Your task to perform on an android device: Open the calendar and show me this week's events? Image 0: 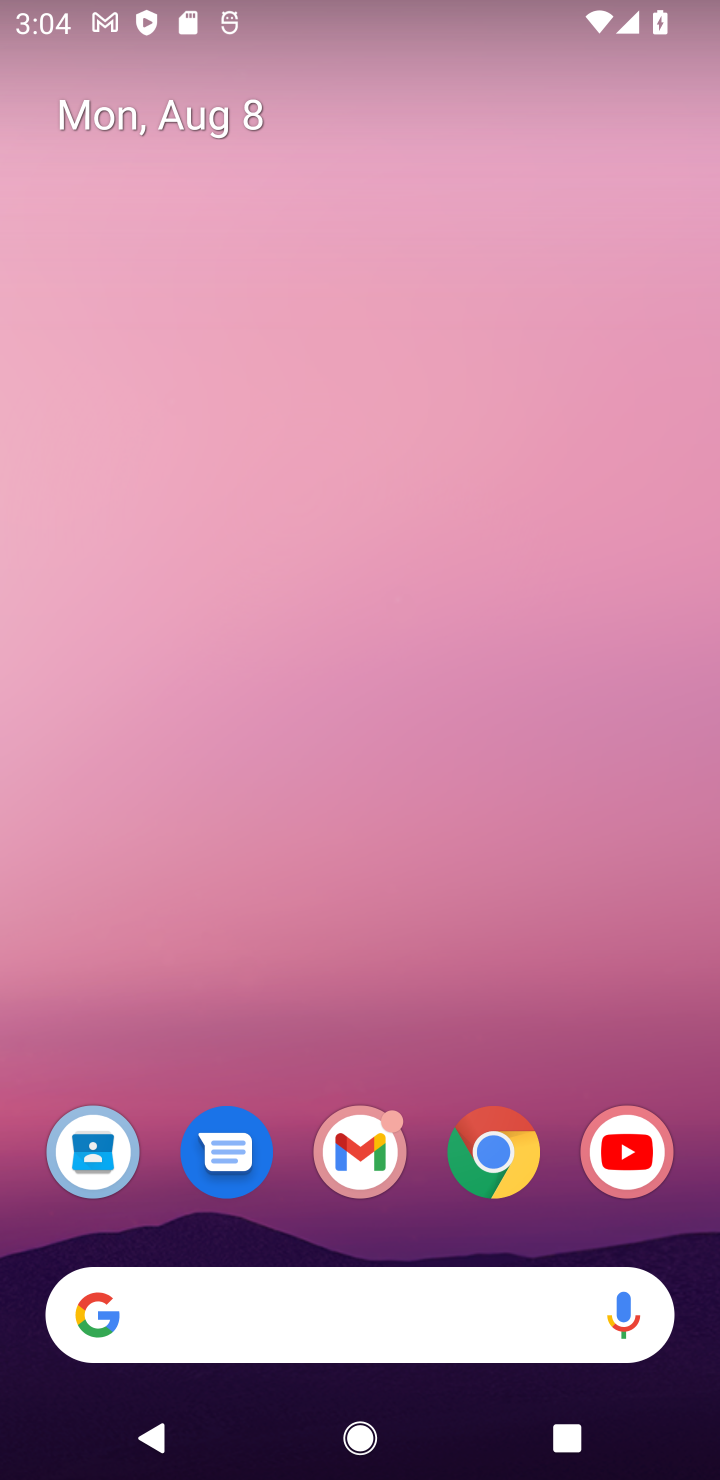
Step 0: drag from (408, 1221) to (638, 119)
Your task to perform on an android device: Open the calendar and show me this week's events? Image 1: 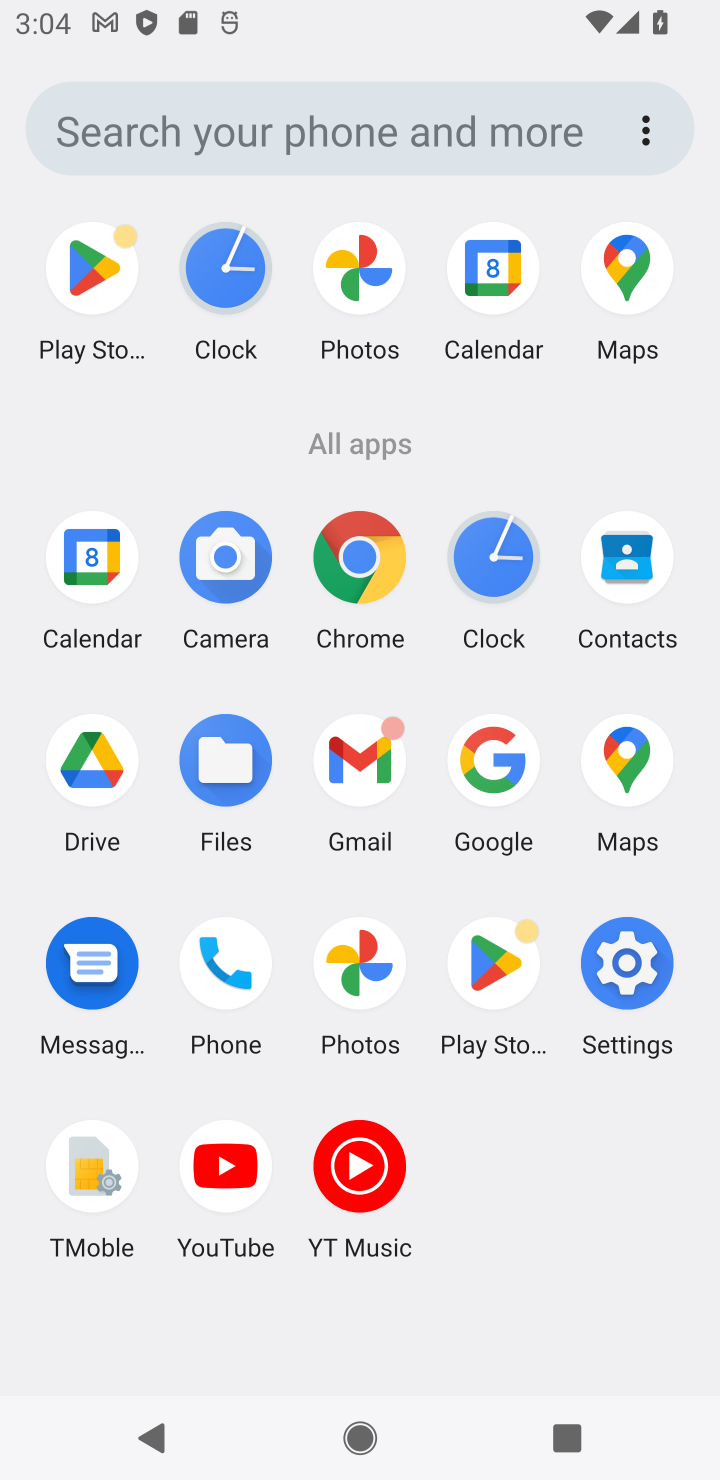
Step 1: click (100, 615)
Your task to perform on an android device: Open the calendar and show me this week's events? Image 2: 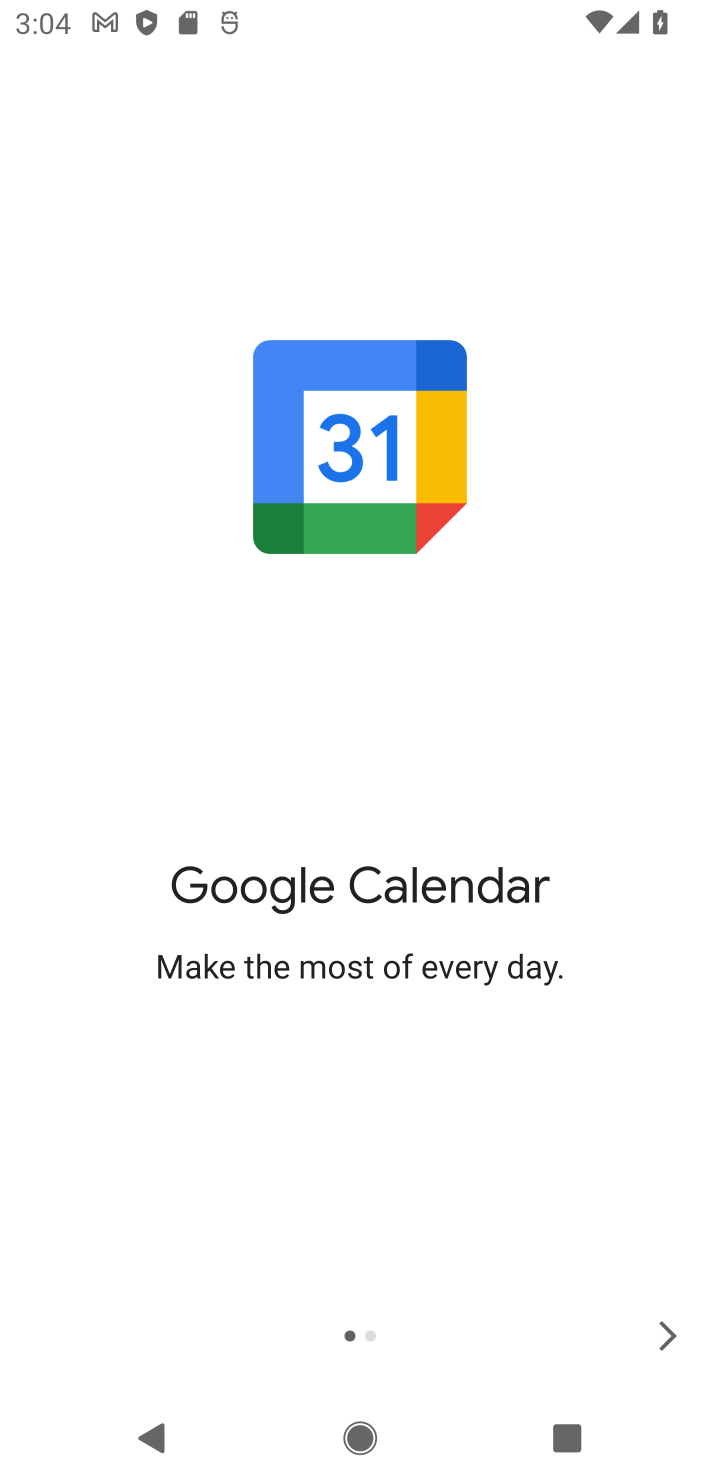
Step 2: click (660, 1340)
Your task to perform on an android device: Open the calendar and show me this week's events? Image 3: 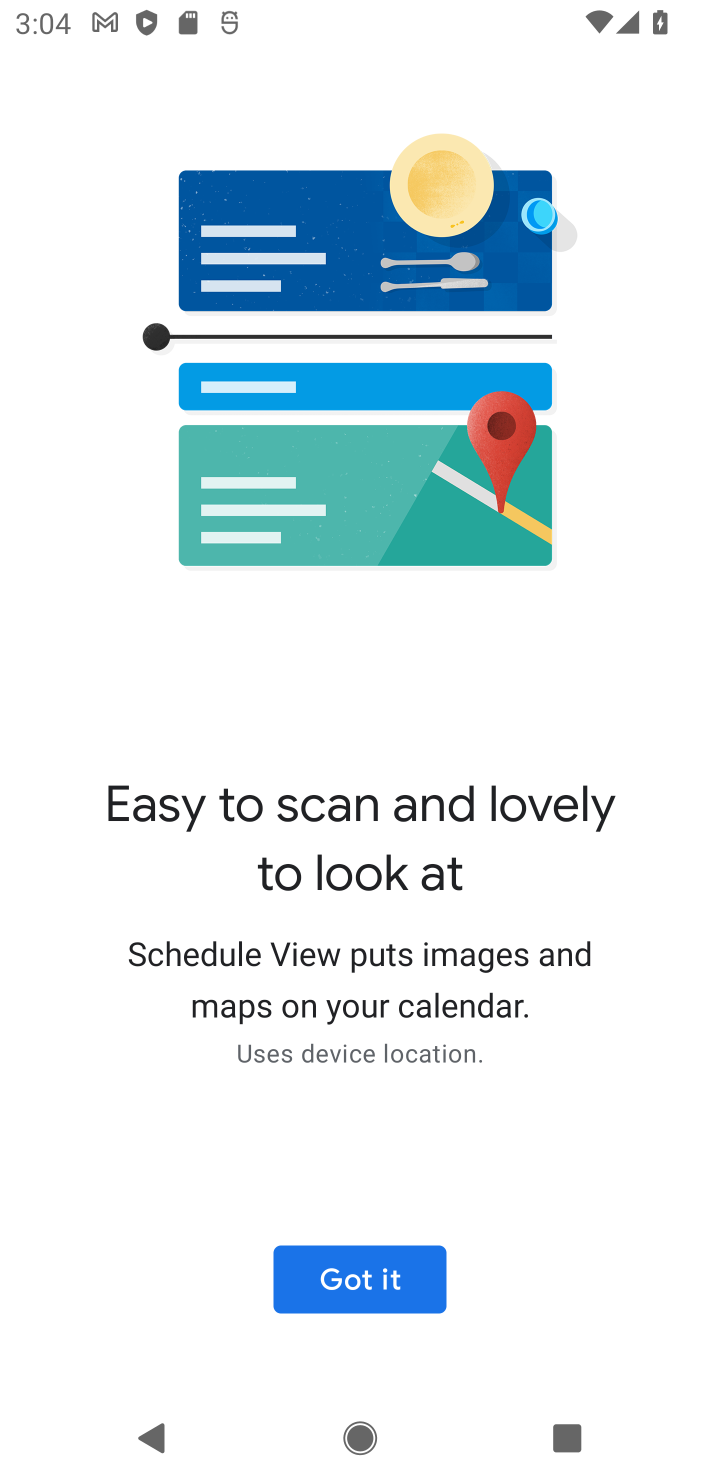
Step 3: click (315, 1272)
Your task to perform on an android device: Open the calendar and show me this week's events? Image 4: 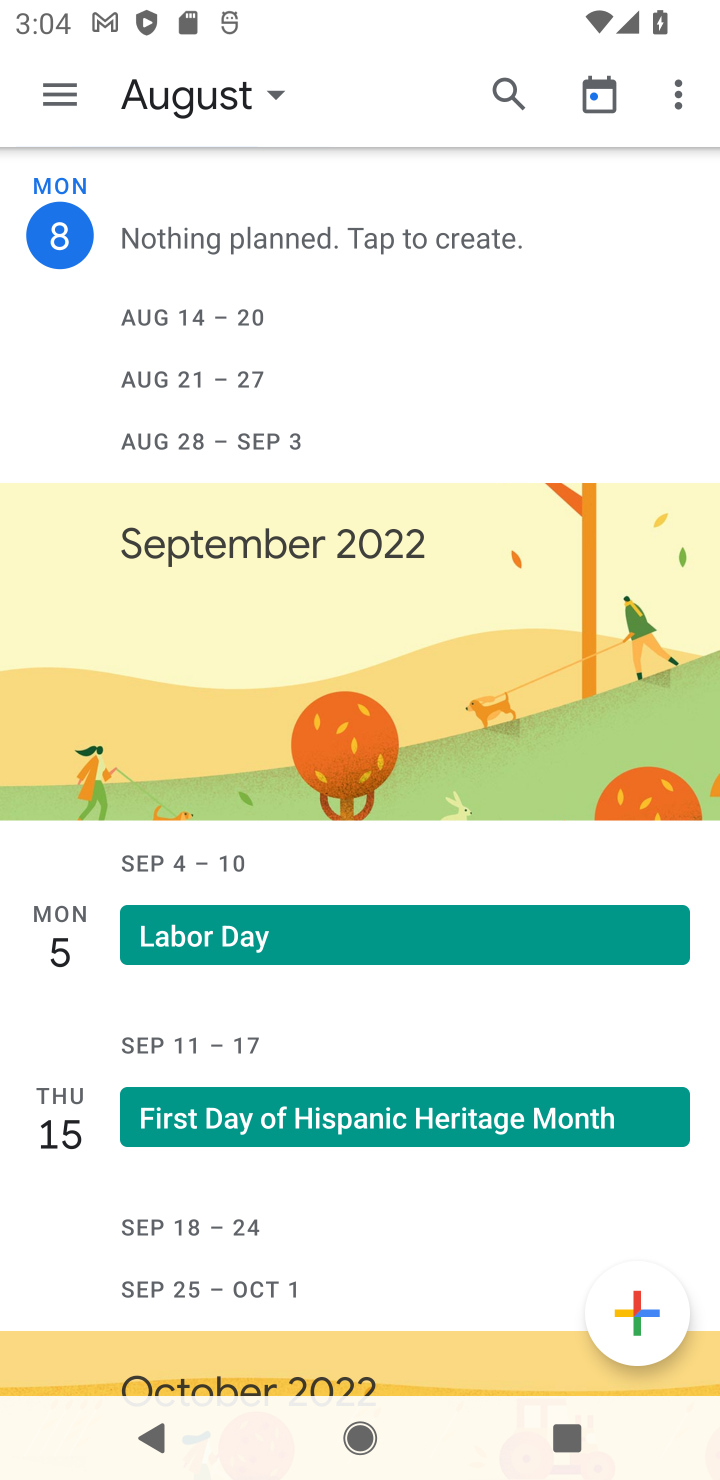
Step 4: click (55, 93)
Your task to perform on an android device: Open the calendar and show me this week's events? Image 5: 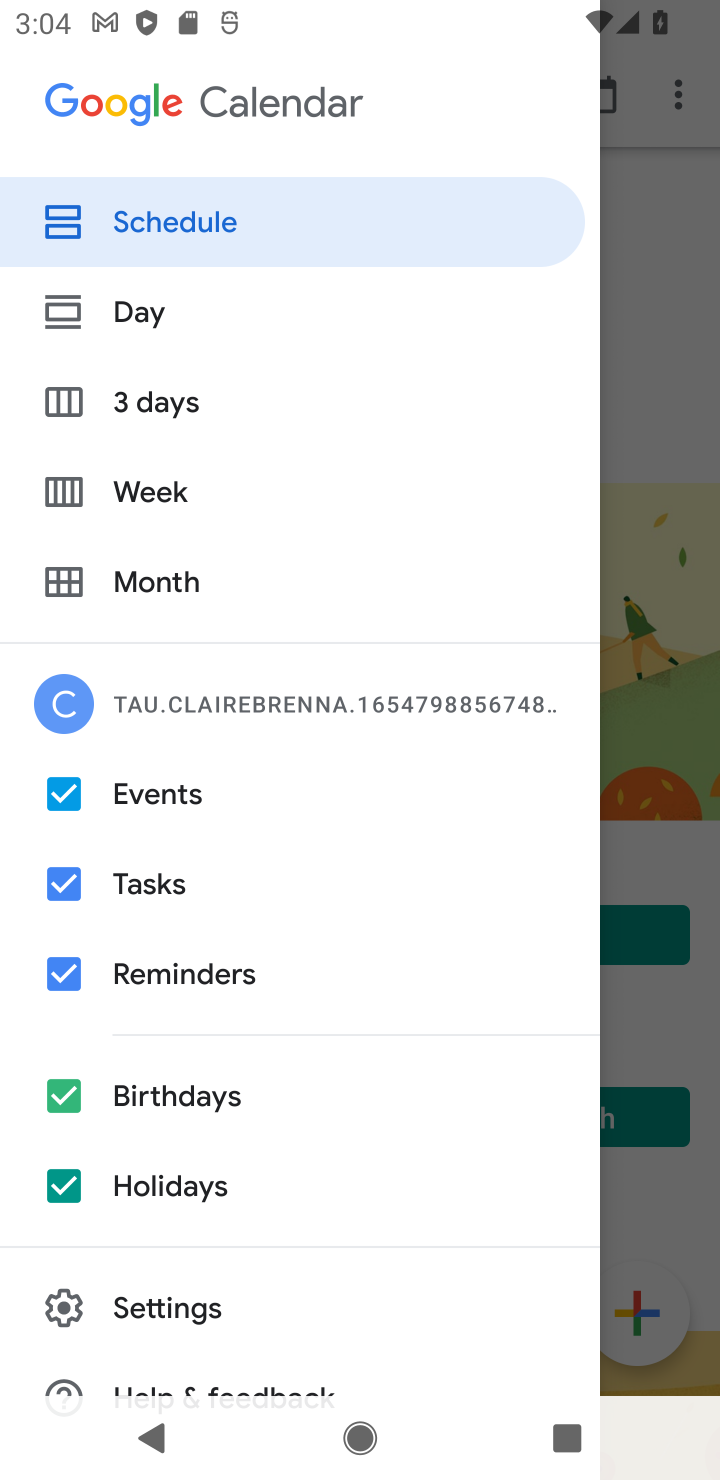
Step 5: click (151, 863)
Your task to perform on an android device: Open the calendar and show me this week's events? Image 6: 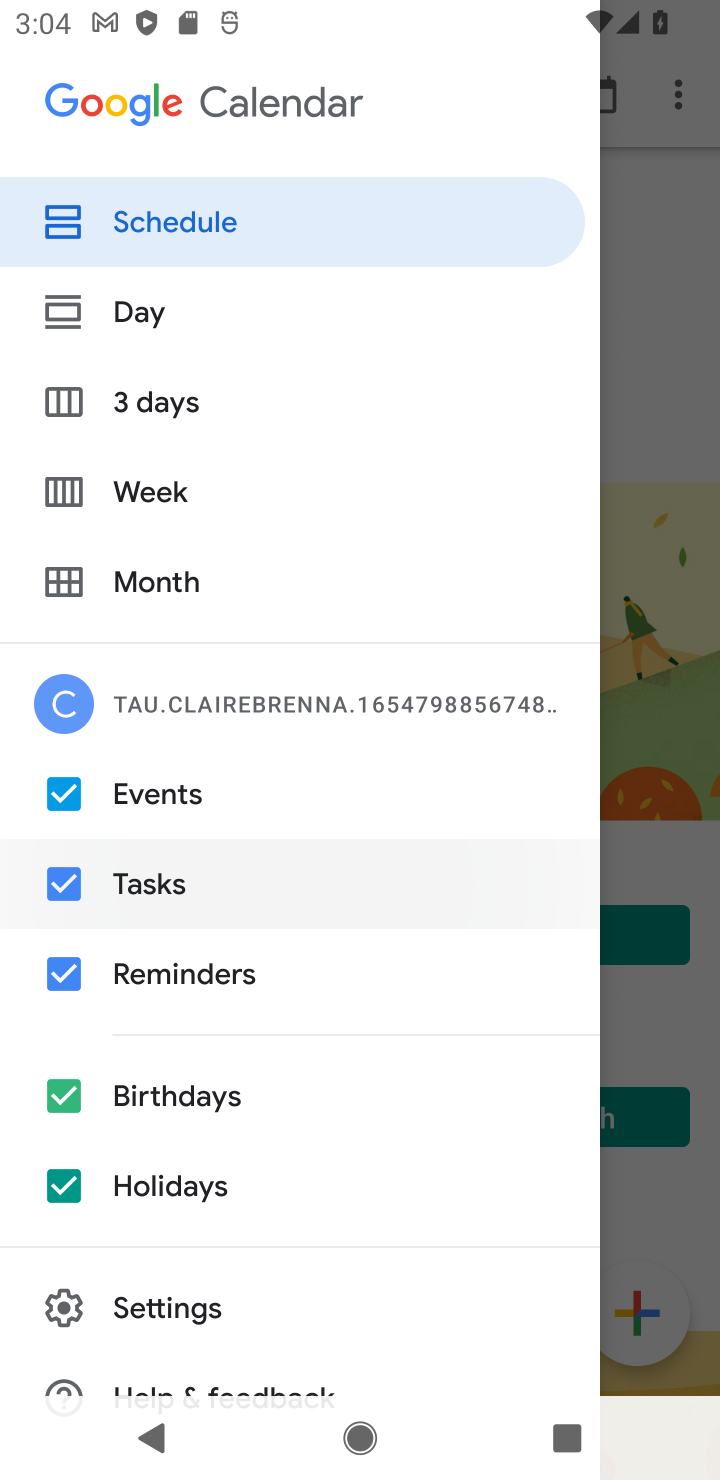
Step 6: click (140, 994)
Your task to perform on an android device: Open the calendar and show me this week's events? Image 7: 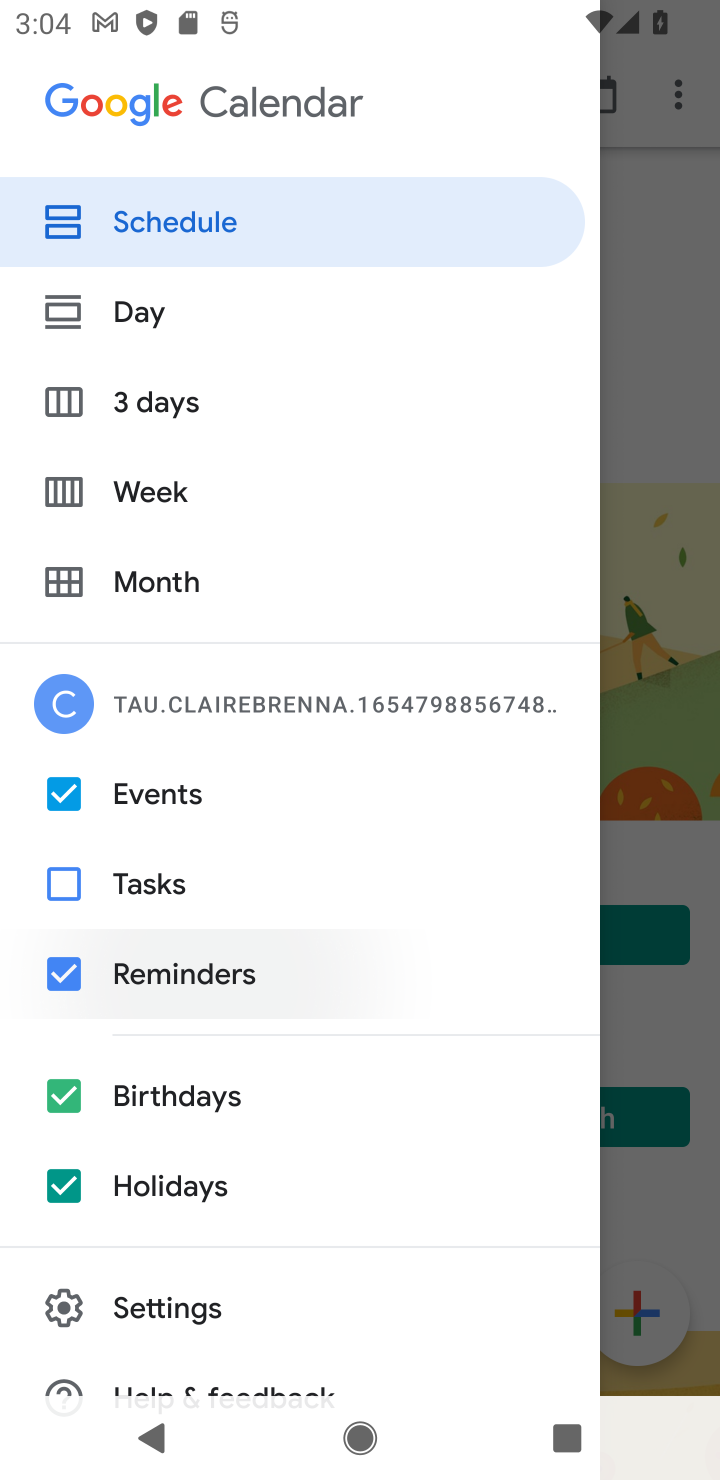
Step 7: click (126, 1093)
Your task to perform on an android device: Open the calendar and show me this week's events? Image 8: 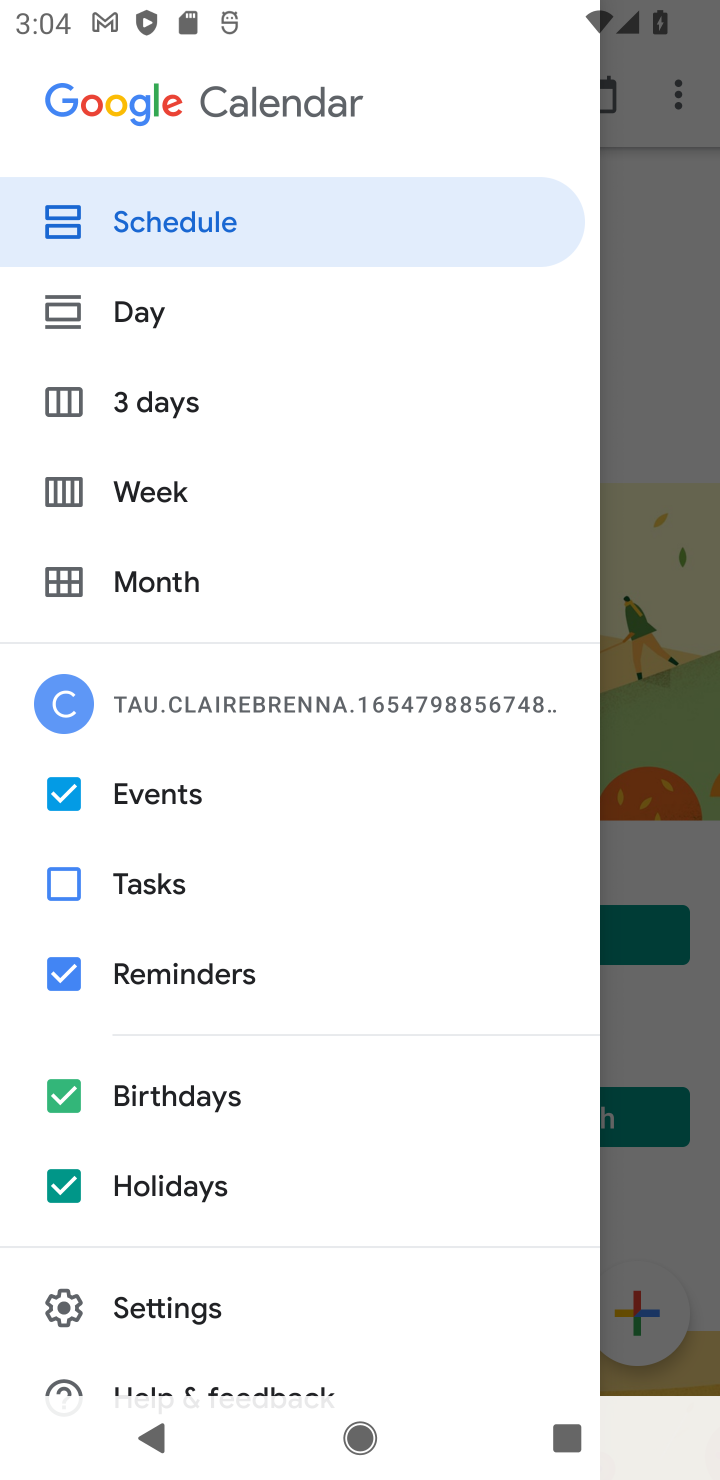
Step 8: click (113, 1201)
Your task to perform on an android device: Open the calendar and show me this week's events? Image 9: 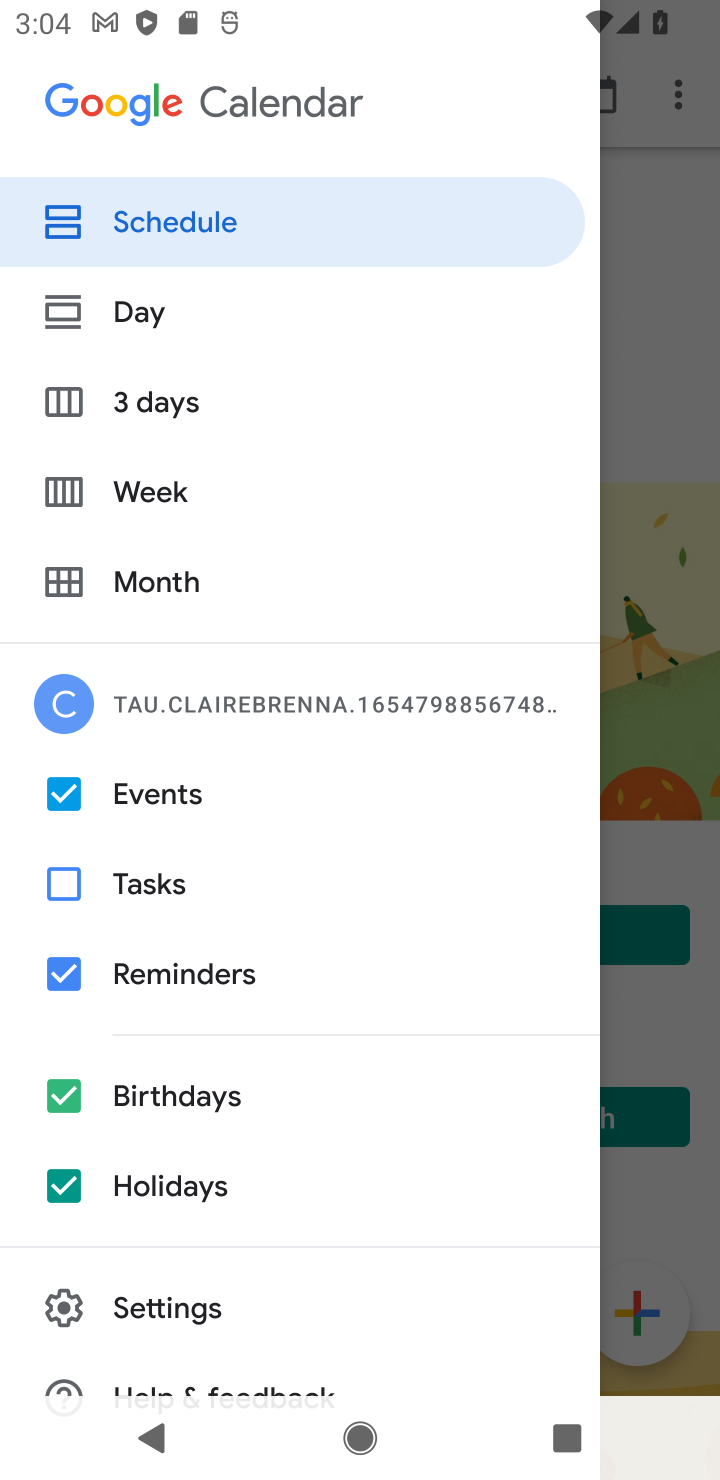
Step 9: click (119, 1181)
Your task to perform on an android device: Open the calendar and show me this week's events? Image 10: 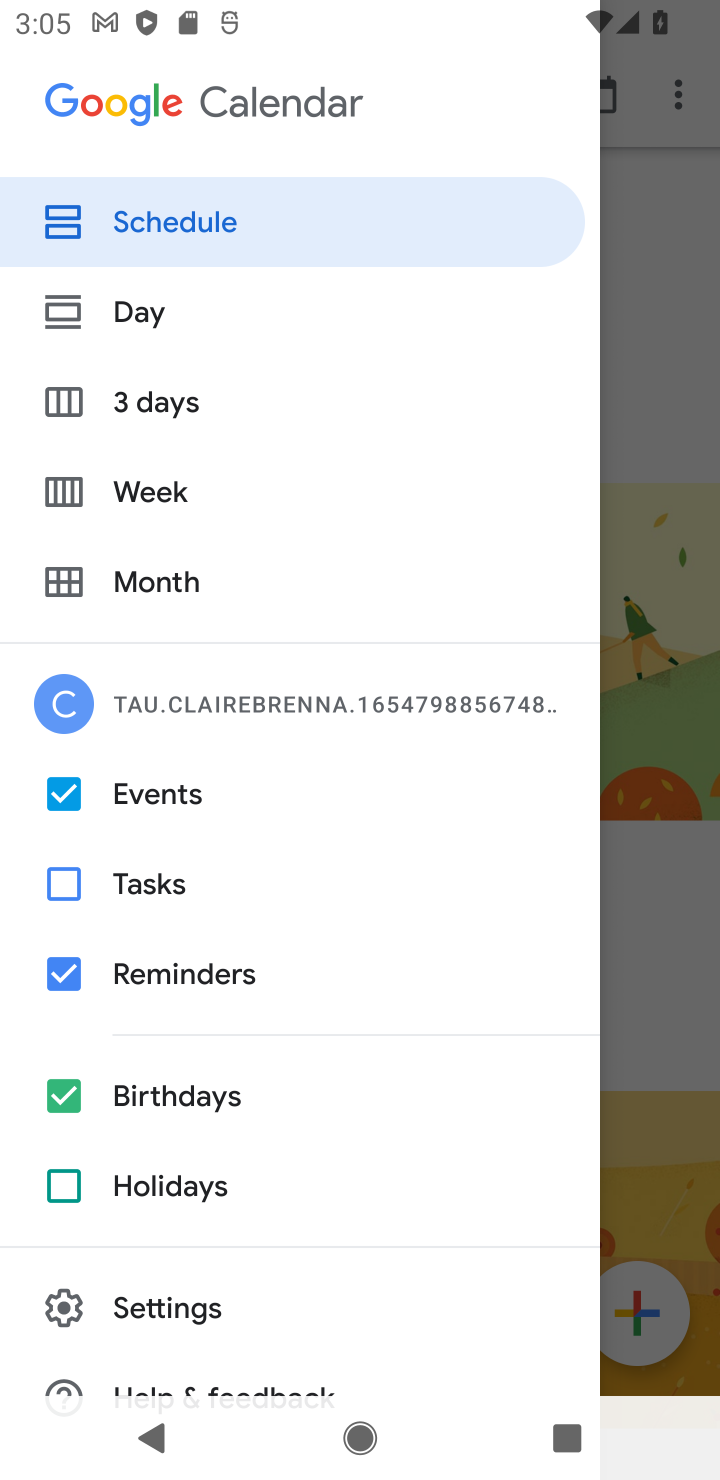
Step 10: click (162, 1076)
Your task to perform on an android device: Open the calendar and show me this week's events? Image 11: 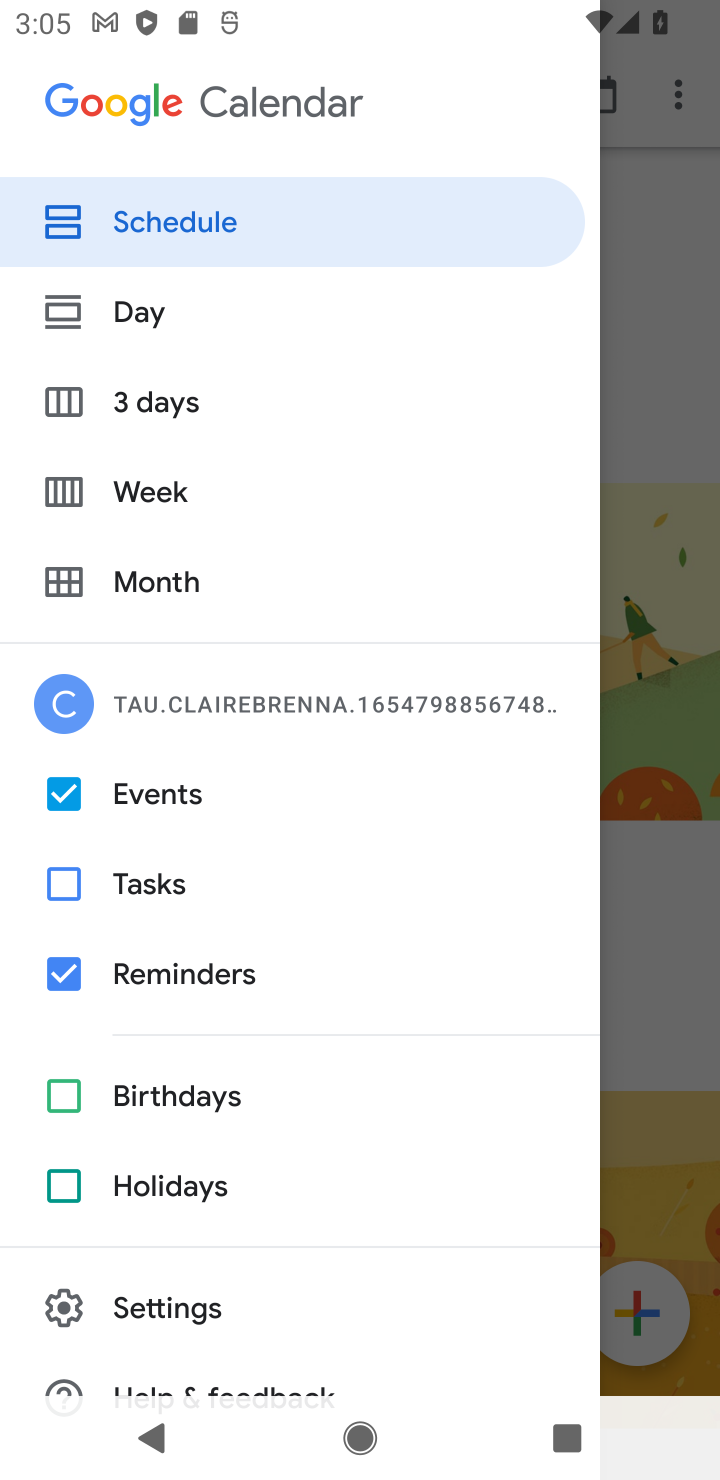
Step 11: click (183, 982)
Your task to perform on an android device: Open the calendar and show me this week's events? Image 12: 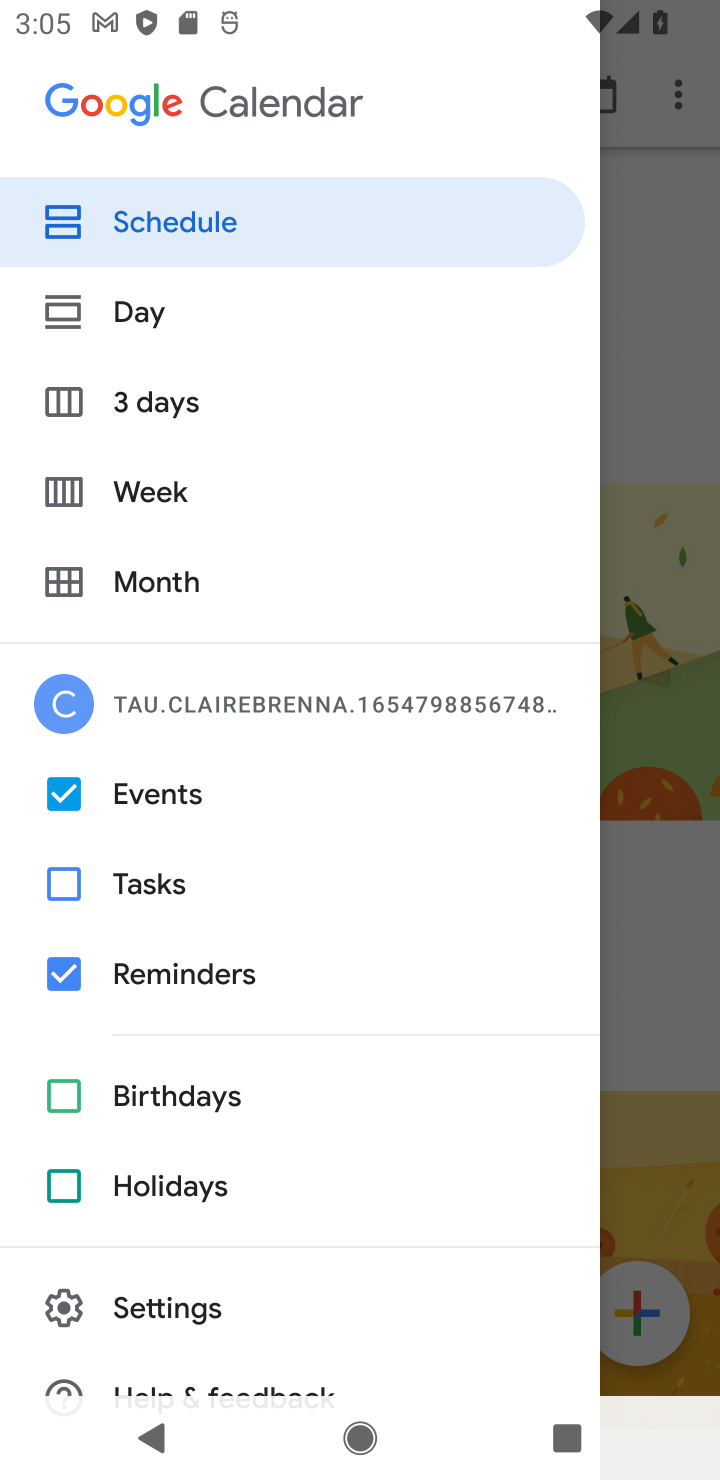
Step 12: click (69, 969)
Your task to perform on an android device: Open the calendar and show me this week's events? Image 13: 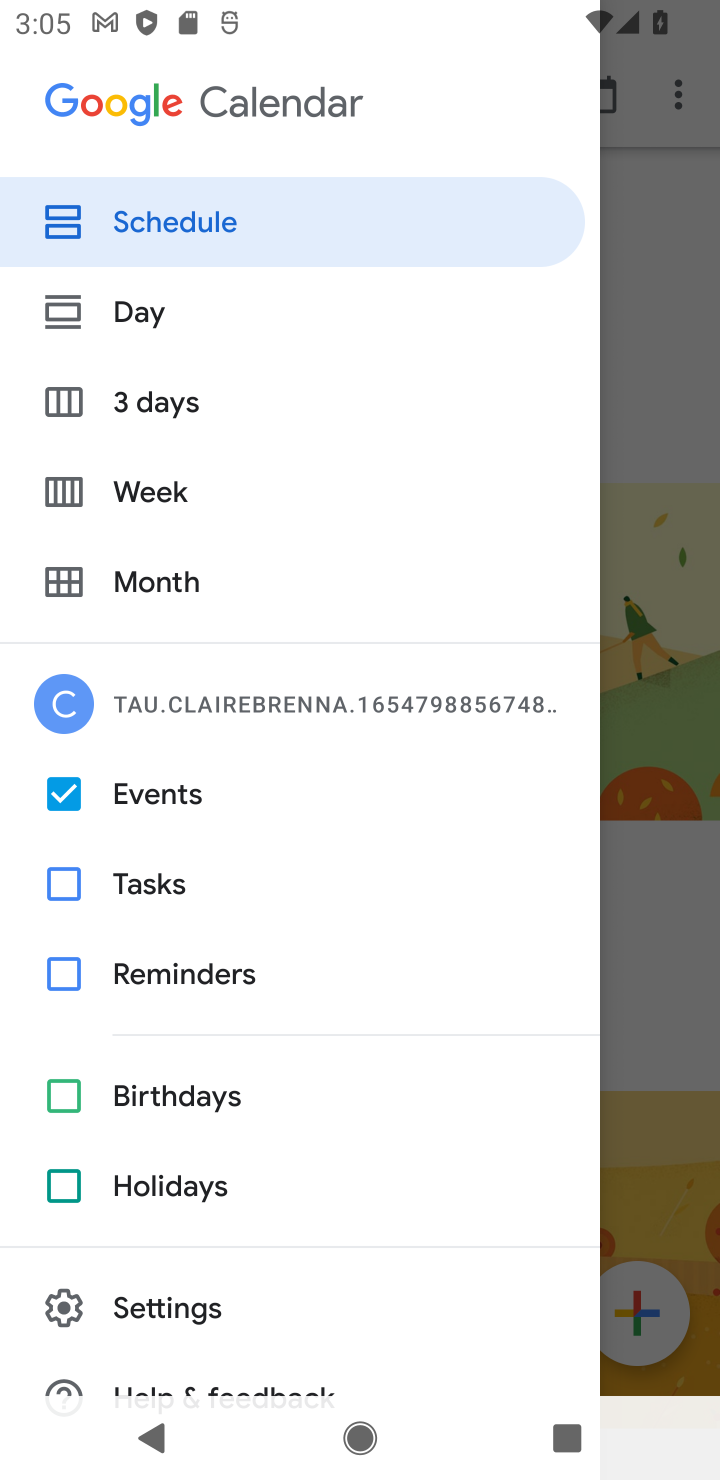
Step 13: click (171, 482)
Your task to perform on an android device: Open the calendar and show me this week's events? Image 14: 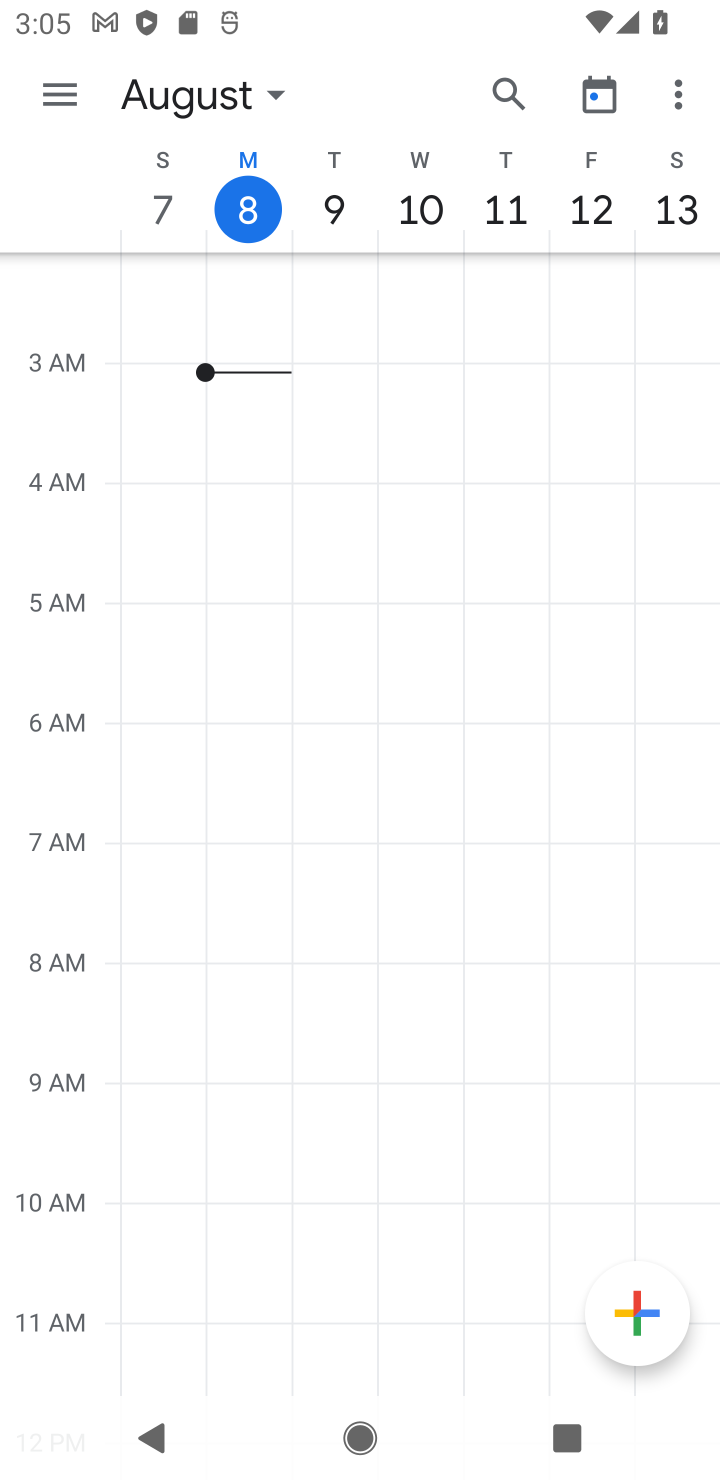
Step 14: task complete